Your task to perform on an android device: move an email to a new category in the gmail app Image 0: 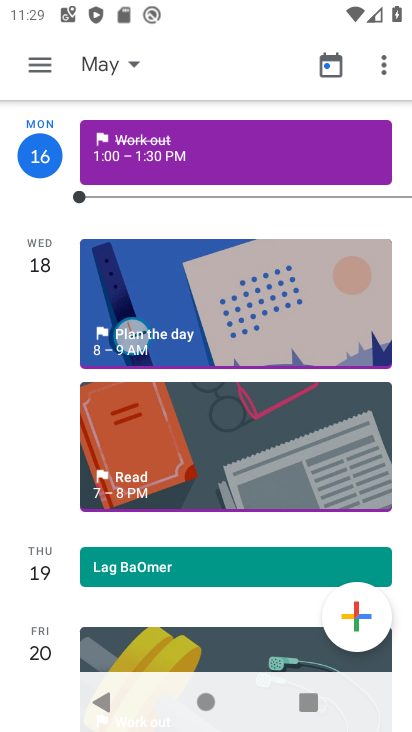
Step 0: press home button
Your task to perform on an android device: move an email to a new category in the gmail app Image 1: 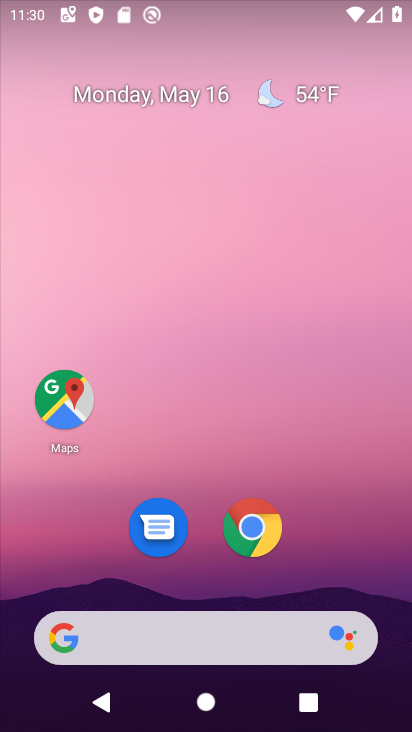
Step 1: drag from (253, 679) to (304, 244)
Your task to perform on an android device: move an email to a new category in the gmail app Image 2: 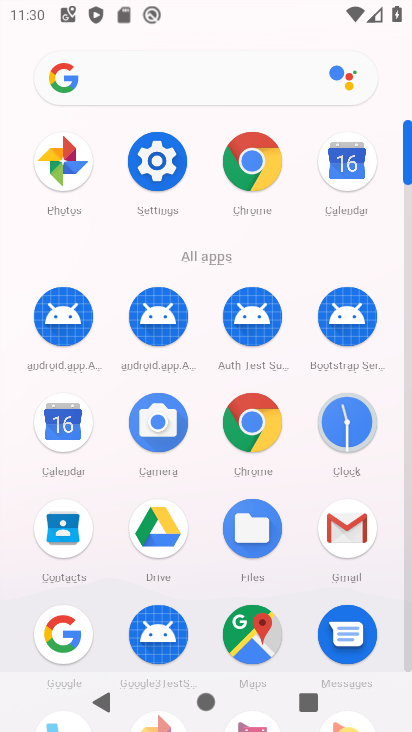
Step 2: click (354, 550)
Your task to perform on an android device: move an email to a new category in the gmail app Image 3: 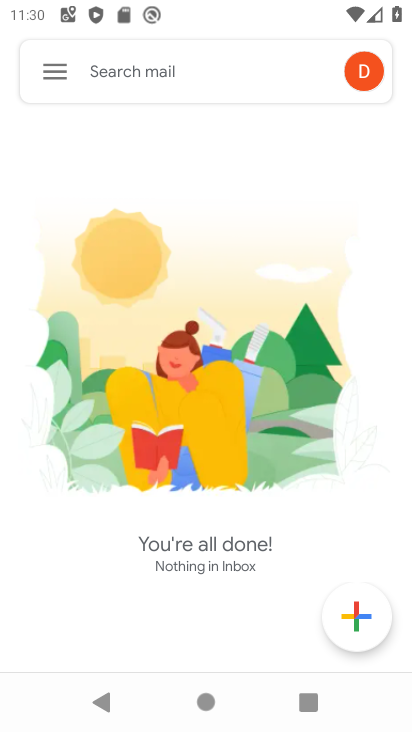
Step 3: click (57, 76)
Your task to perform on an android device: move an email to a new category in the gmail app Image 4: 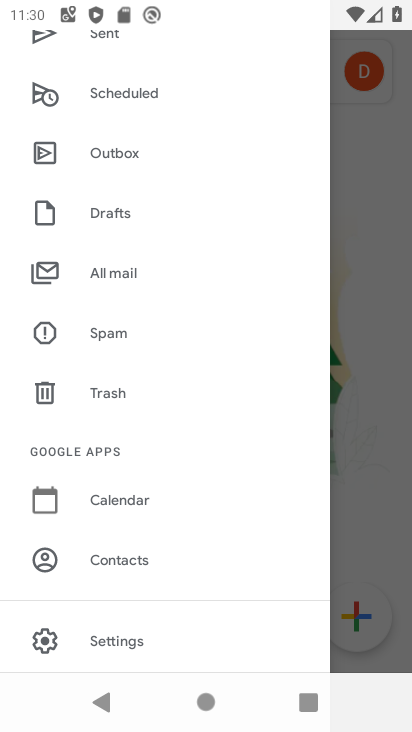
Step 4: click (121, 643)
Your task to perform on an android device: move an email to a new category in the gmail app Image 5: 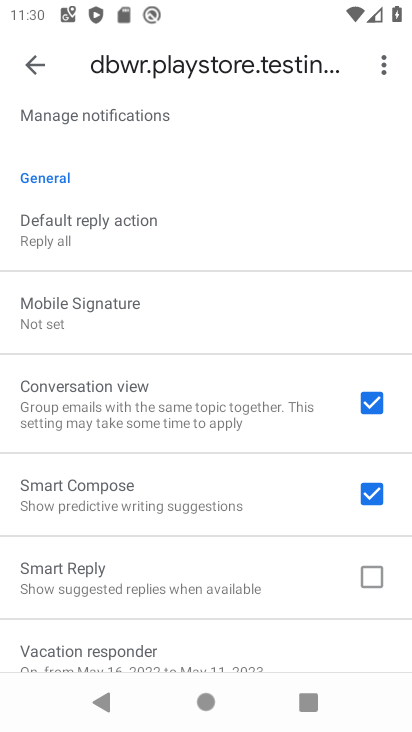
Step 5: drag from (102, 252) to (166, 420)
Your task to perform on an android device: move an email to a new category in the gmail app Image 6: 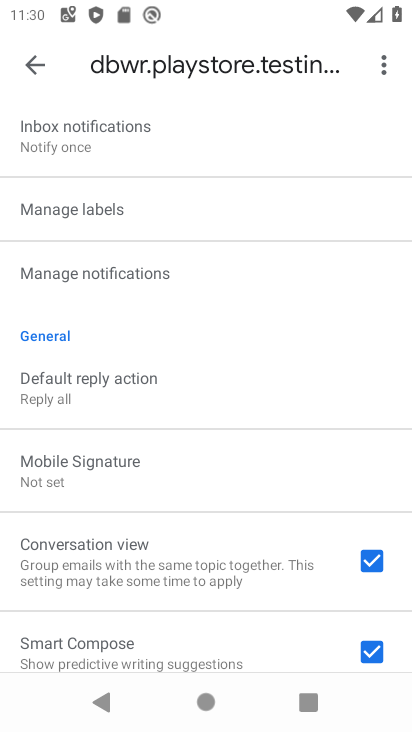
Step 6: click (110, 217)
Your task to perform on an android device: move an email to a new category in the gmail app Image 7: 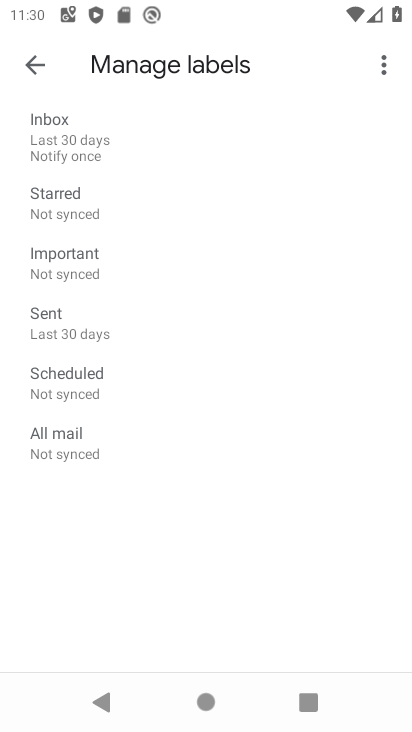
Step 7: click (109, 217)
Your task to perform on an android device: move an email to a new category in the gmail app Image 8: 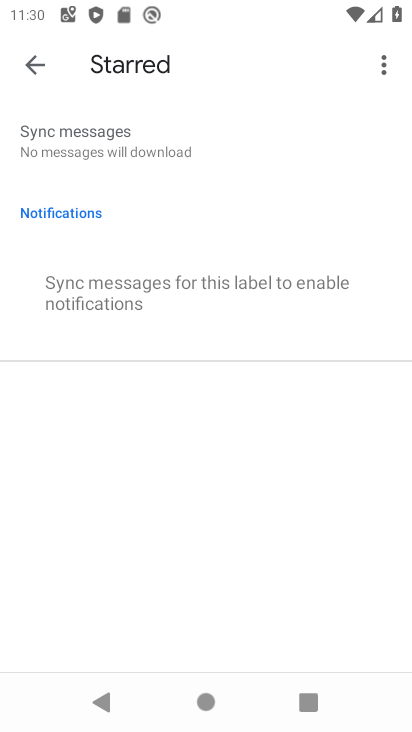
Step 8: task complete